Your task to perform on an android device: Search for the best rated drill on Lowes.com Image 0: 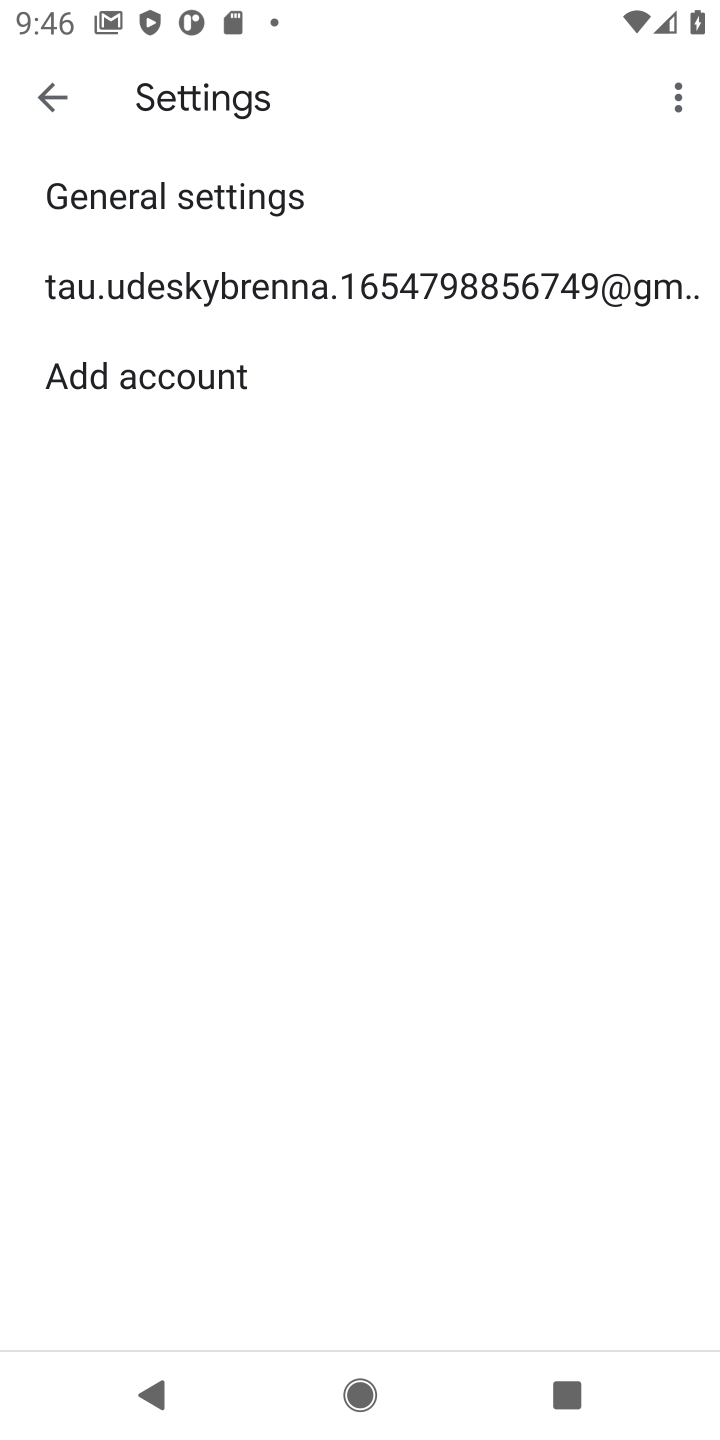
Step 0: press home button
Your task to perform on an android device: Search for the best rated drill on Lowes.com Image 1: 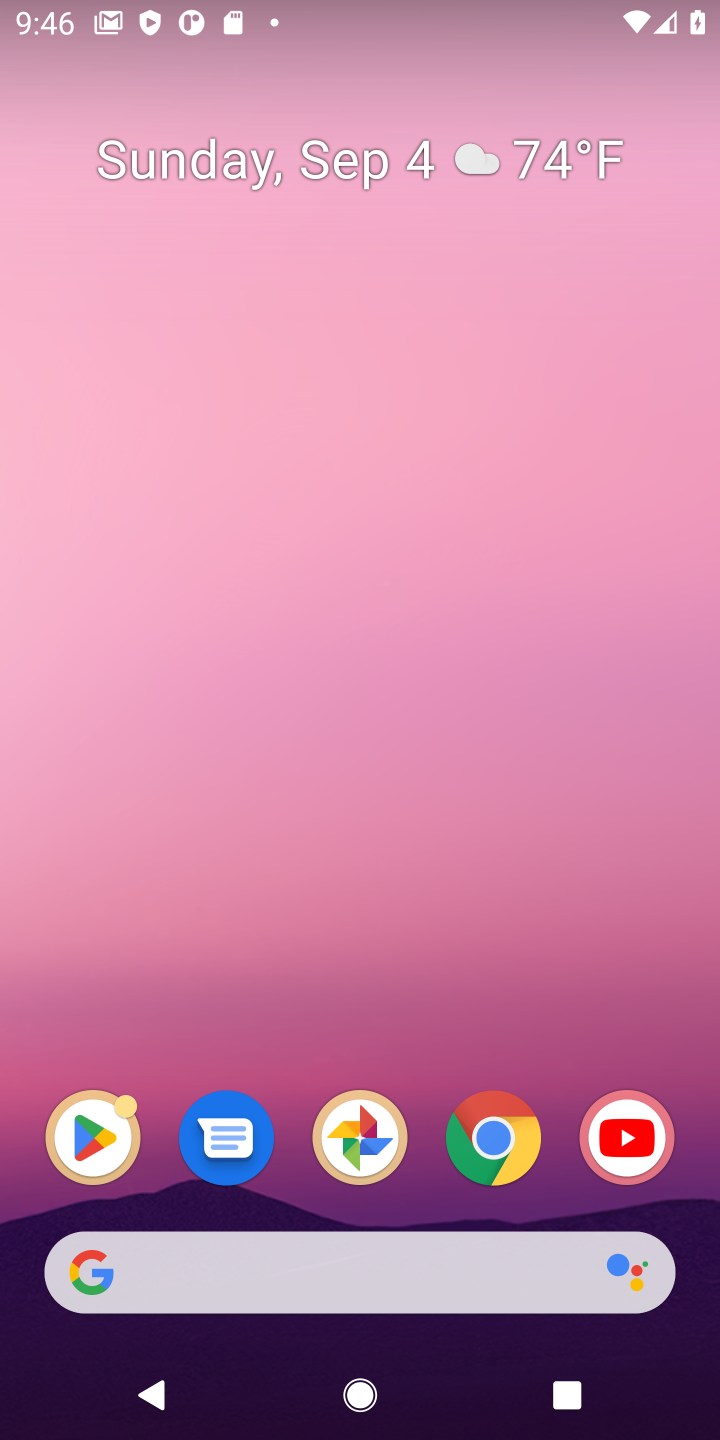
Step 1: click (476, 1138)
Your task to perform on an android device: Search for the best rated drill on Lowes.com Image 2: 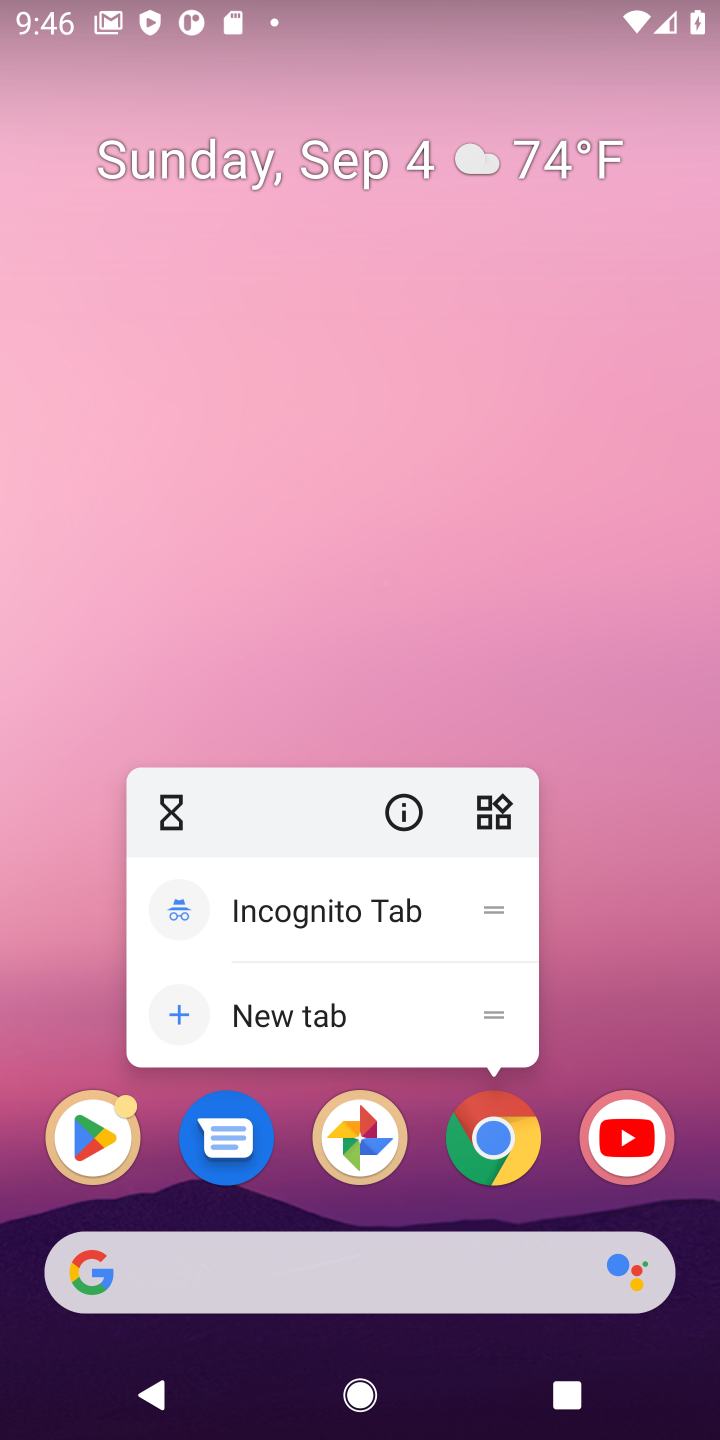
Step 2: click (516, 1113)
Your task to perform on an android device: Search for the best rated drill on Lowes.com Image 3: 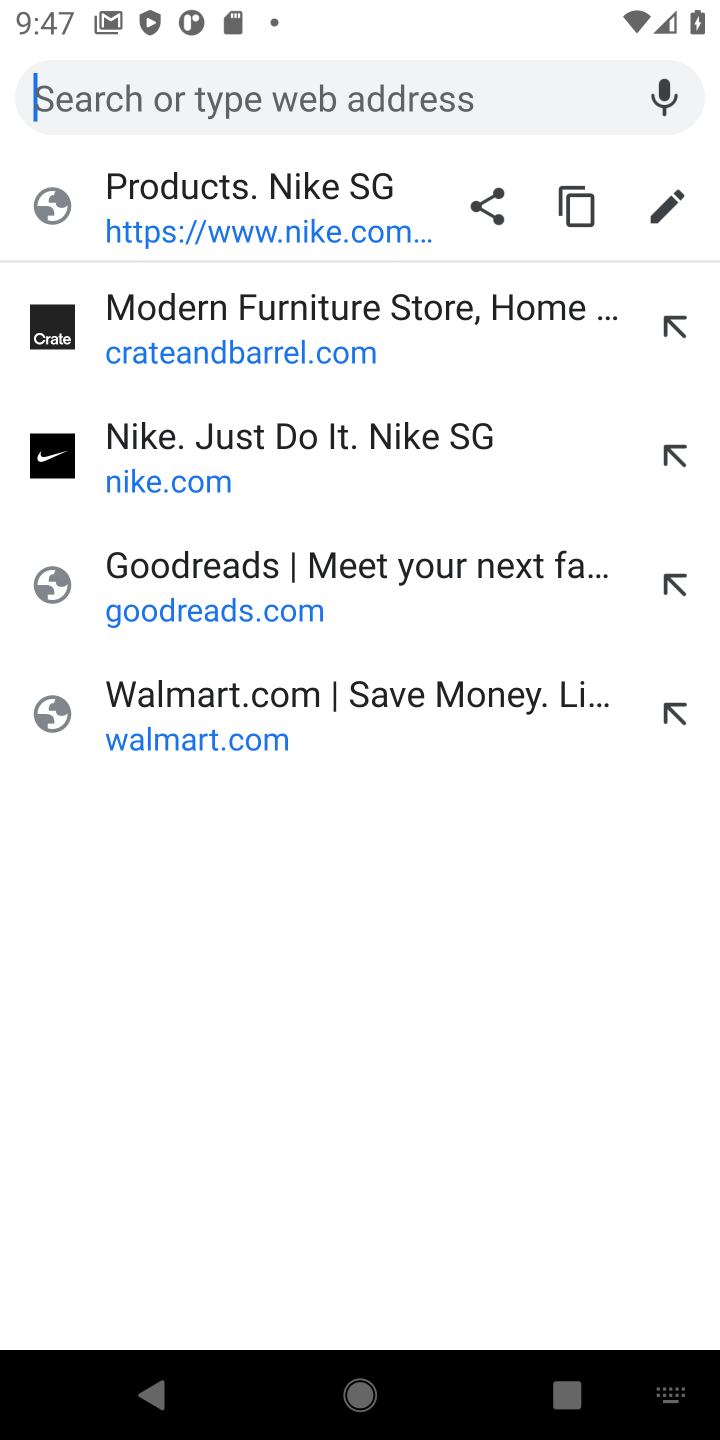
Step 3: type "lowes.com"
Your task to perform on an android device: Search for the best rated drill on Lowes.com Image 4: 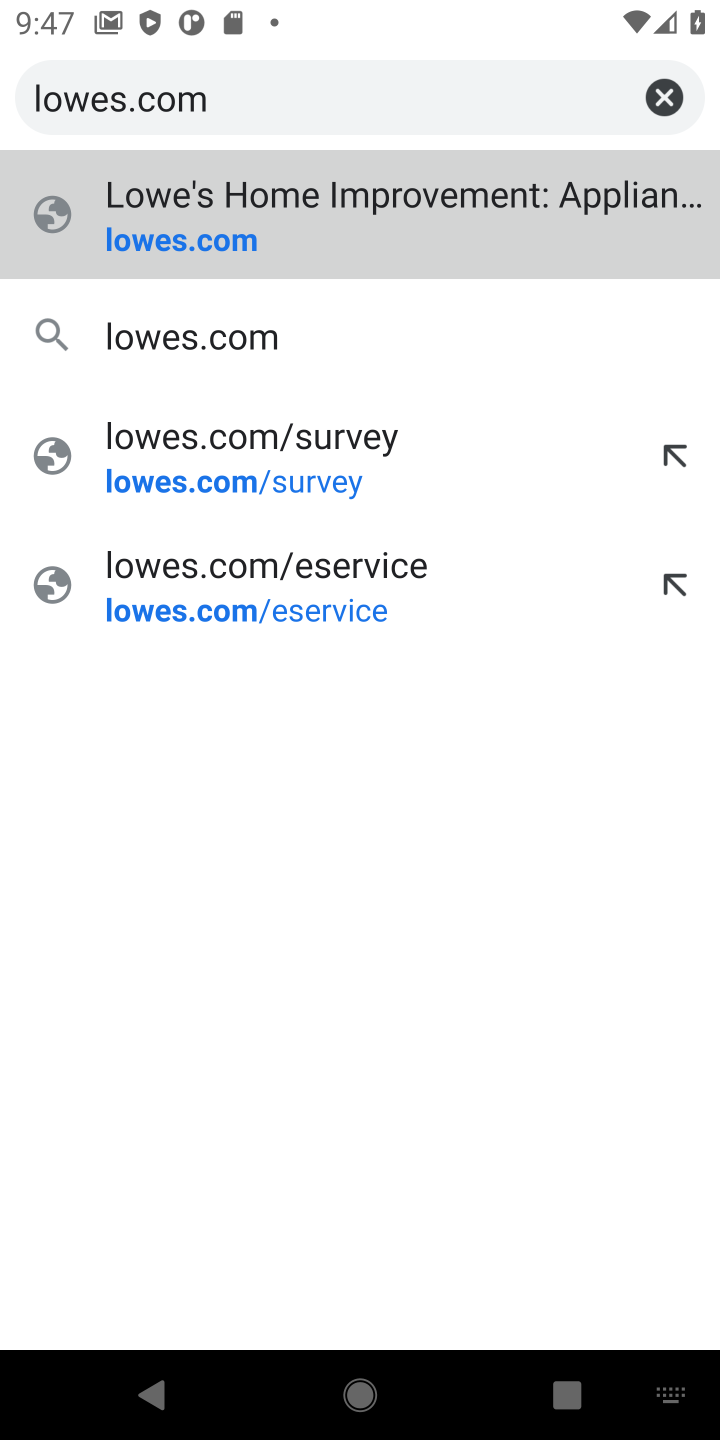
Step 4: click (112, 205)
Your task to perform on an android device: Search for the best rated drill on Lowes.com Image 5: 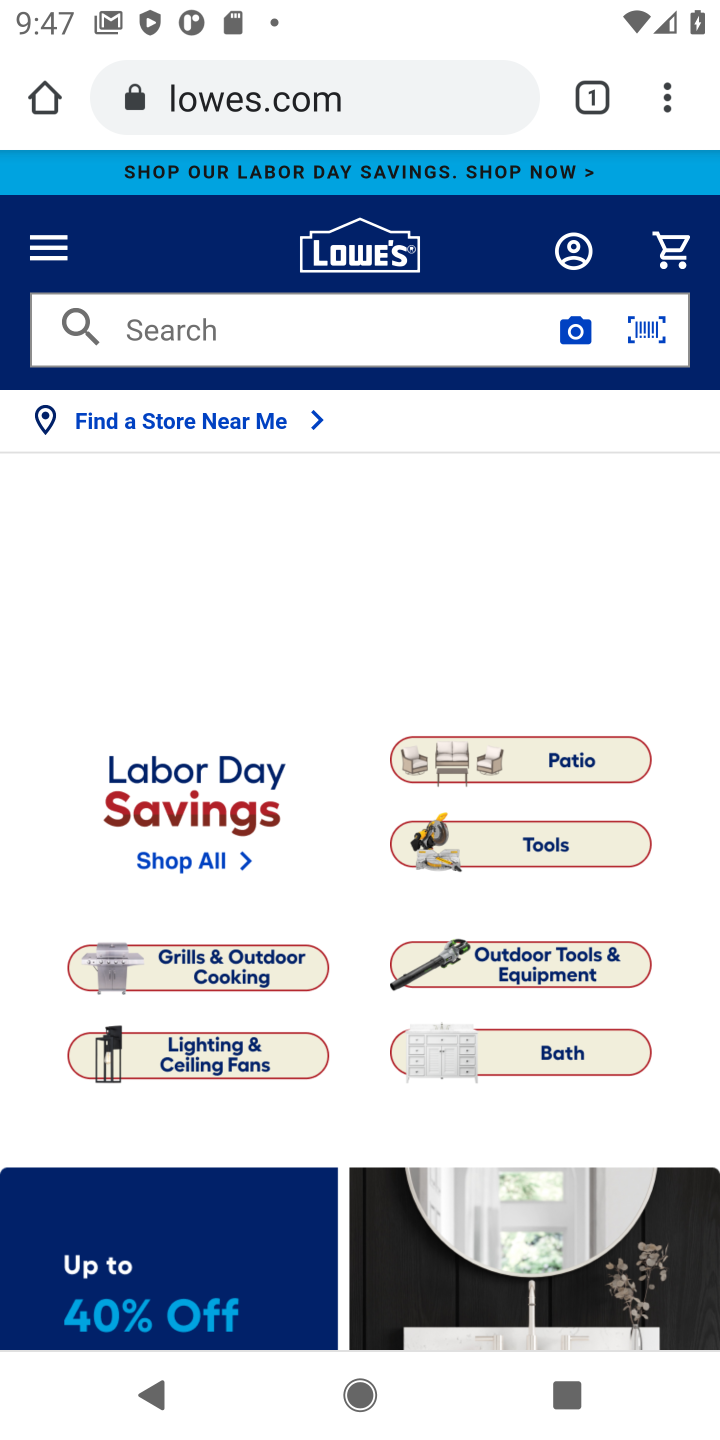
Step 5: click (372, 310)
Your task to perform on an android device: Search for the best rated drill on Lowes.com Image 6: 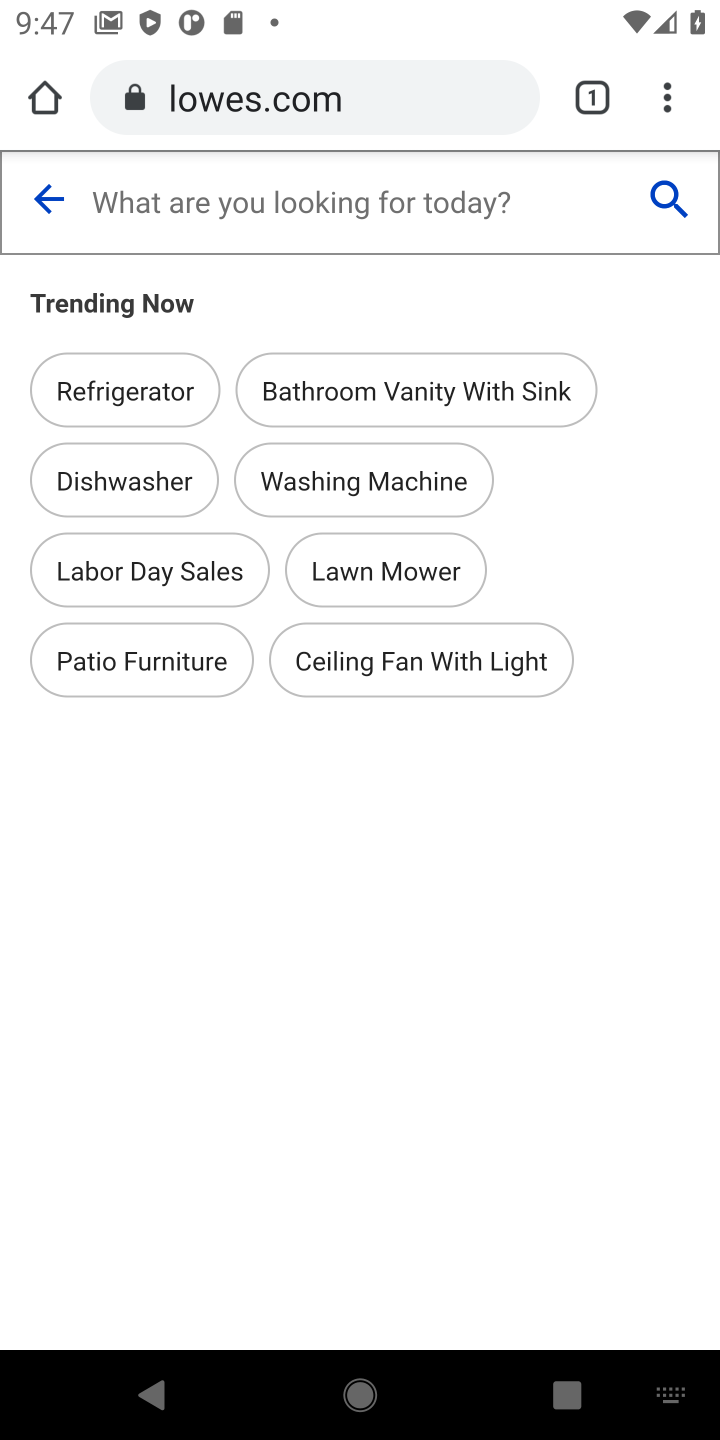
Step 6: type "best rated drill"
Your task to perform on an android device: Search for the best rated drill on Lowes.com Image 7: 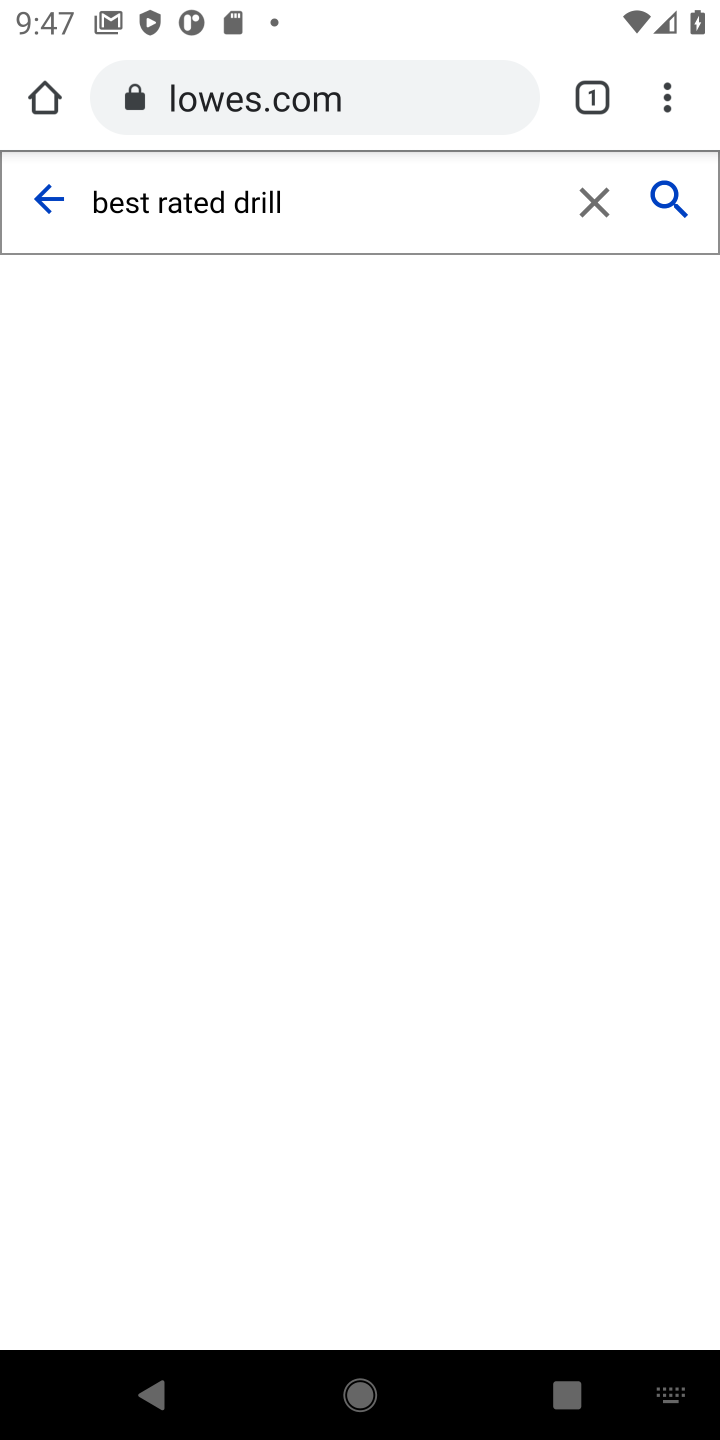
Step 7: press enter
Your task to perform on an android device: Search for the best rated drill on Lowes.com Image 8: 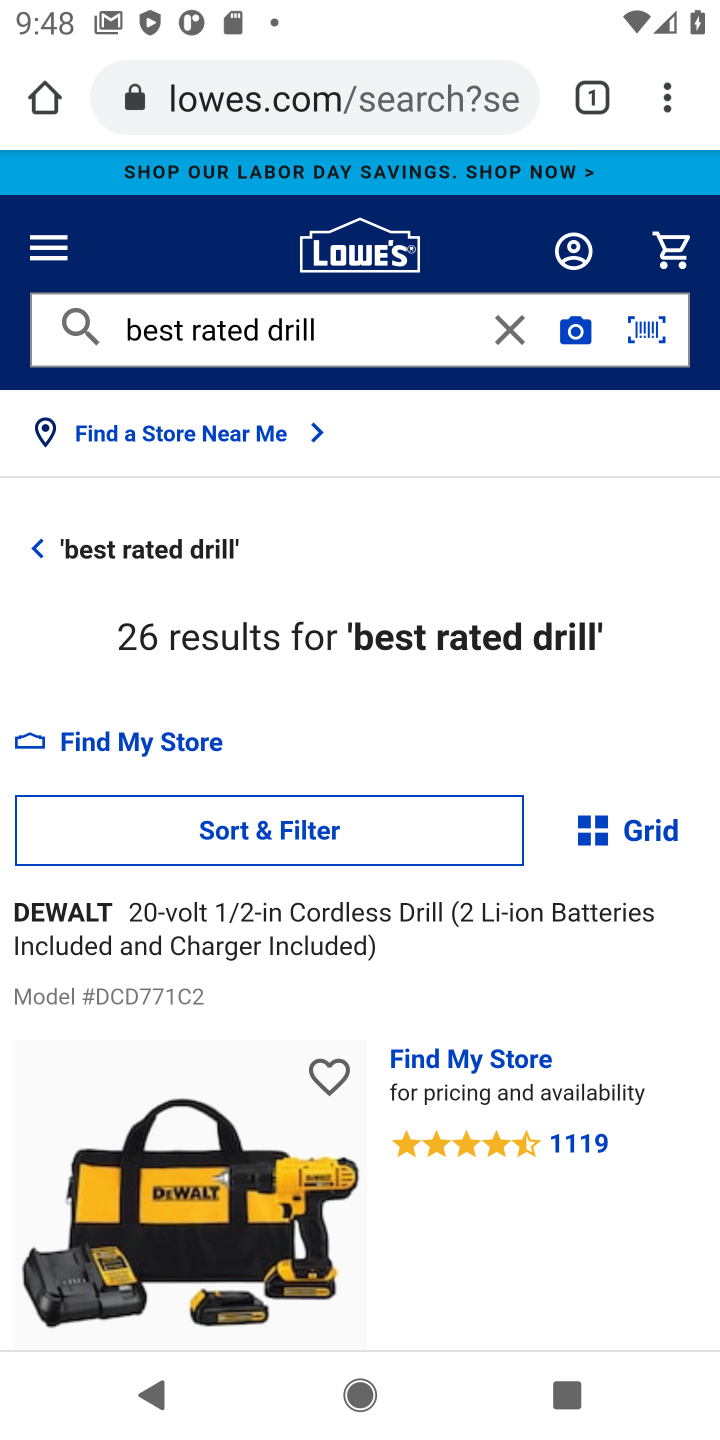
Step 8: task complete